Your task to perform on an android device: Is it going to rain today? Image 0: 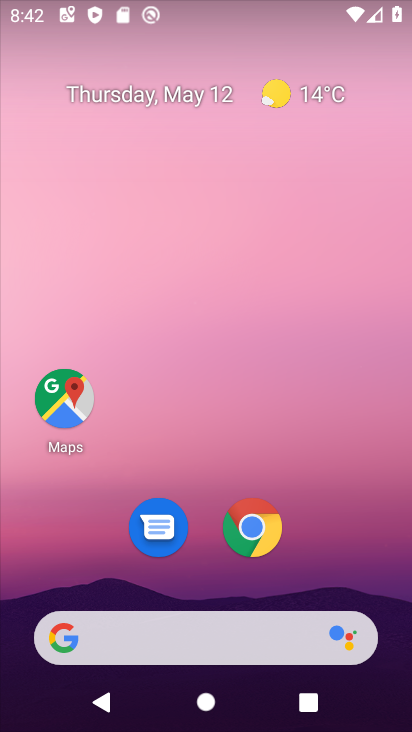
Step 0: drag from (301, 570) to (327, 101)
Your task to perform on an android device: Is it going to rain today? Image 1: 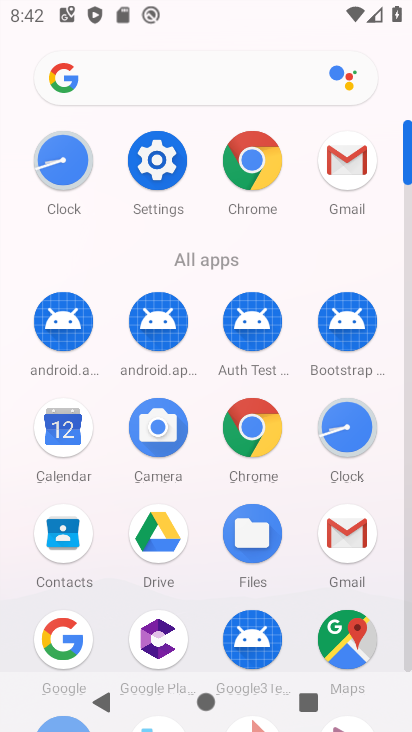
Step 1: click (162, 183)
Your task to perform on an android device: Is it going to rain today? Image 2: 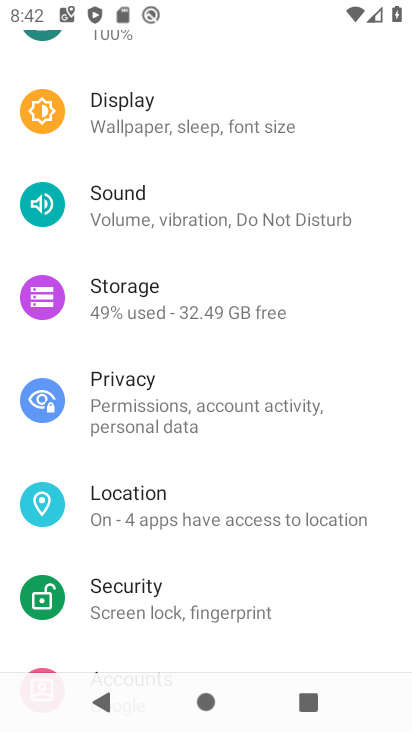
Step 2: click (204, 711)
Your task to perform on an android device: Is it going to rain today? Image 3: 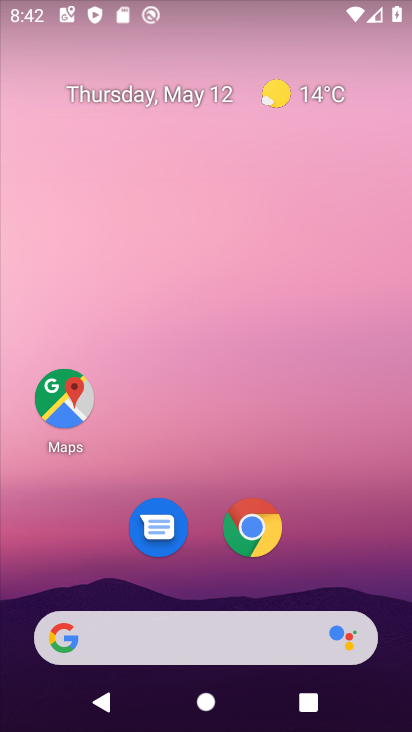
Step 3: click (241, 629)
Your task to perform on an android device: Is it going to rain today? Image 4: 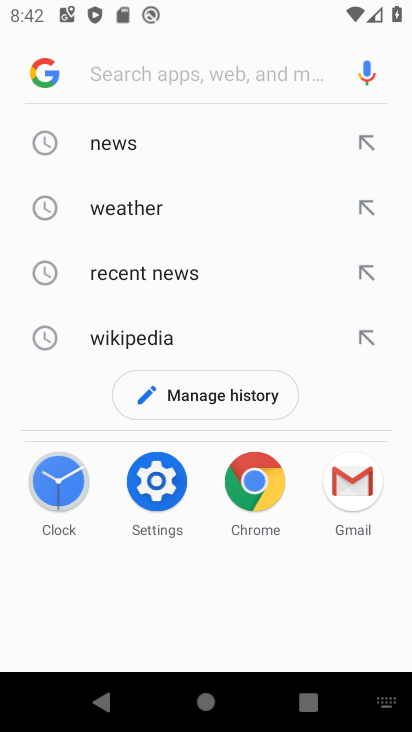
Step 4: click (204, 214)
Your task to perform on an android device: Is it going to rain today? Image 5: 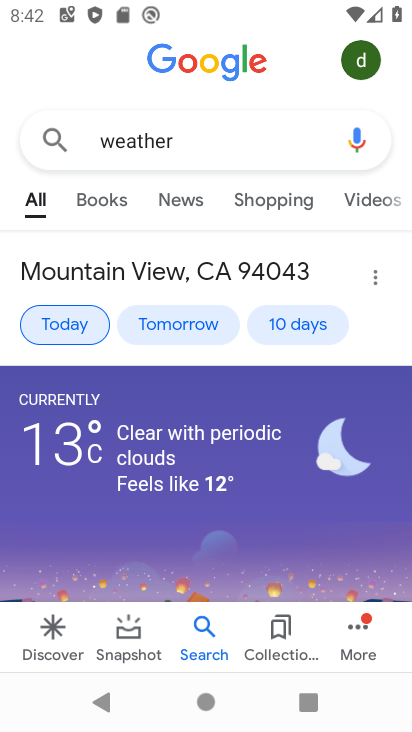
Step 5: task complete